Your task to perform on an android device: Open battery settings Image 0: 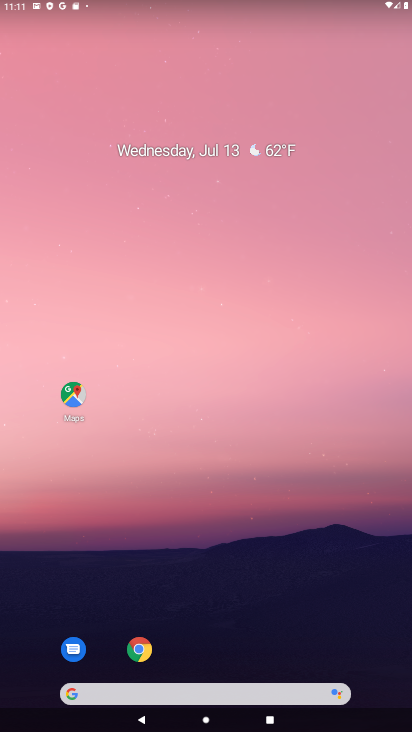
Step 0: drag from (345, 516) to (229, 14)
Your task to perform on an android device: Open battery settings Image 1: 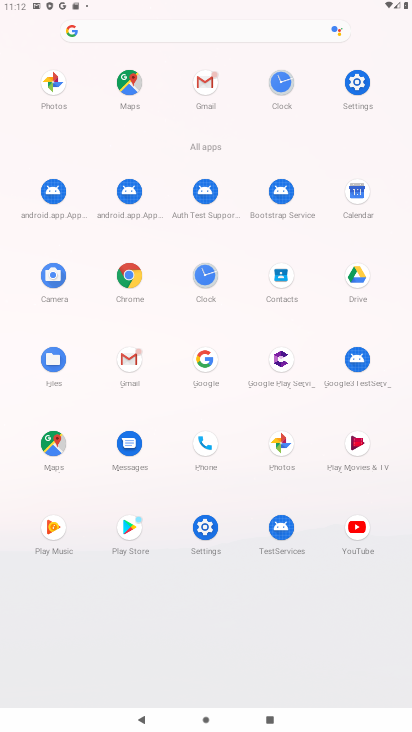
Step 1: click (196, 519)
Your task to perform on an android device: Open battery settings Image 2: 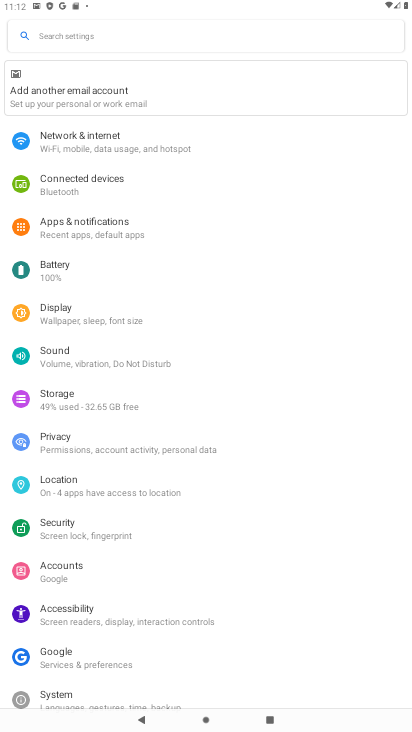
Step 2: click (64, 281)
Your task to perform on an android device: Open battery settings Image 3: 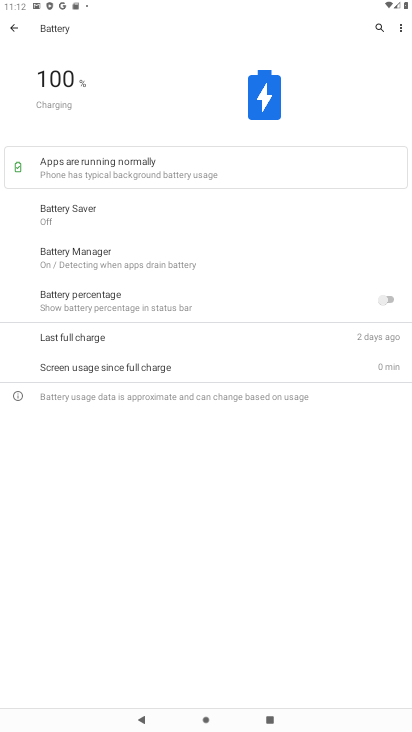
Step 3: task complete